Your task to perform on an android device: turn smart compose on in the gmail app Image 0: 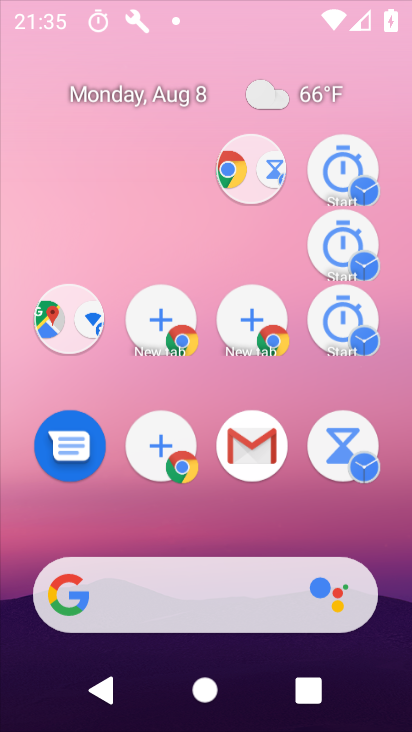
Step 0: drag from (260, 662) to (219, 305)
Your task to perform on an android device: turn smart compose on in the gmail app Image 1: 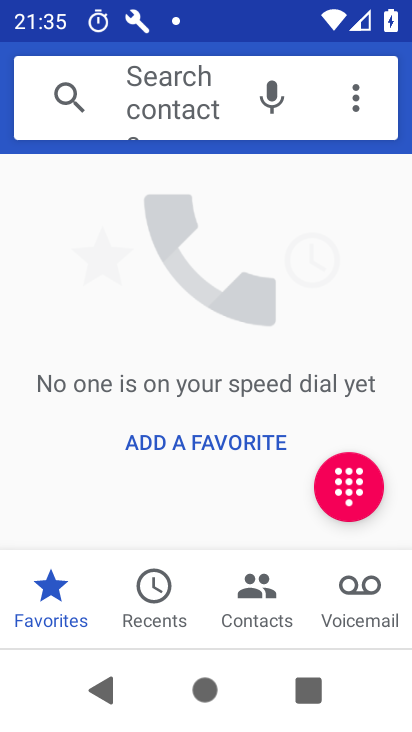
Step 1: drag from (218, 682) to (217, 434)
Your task to perform on an android device: turn smart compose on in the gmail app Image 2: 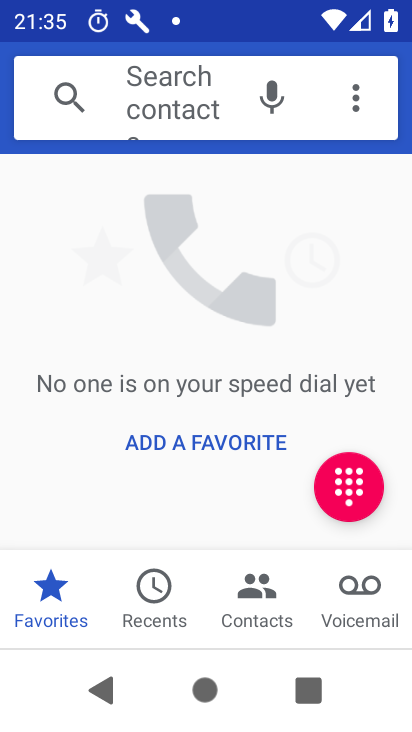
Step 2: press back button
Your task to perform on an android device: turn smart compose on in the gmail app Image 3: 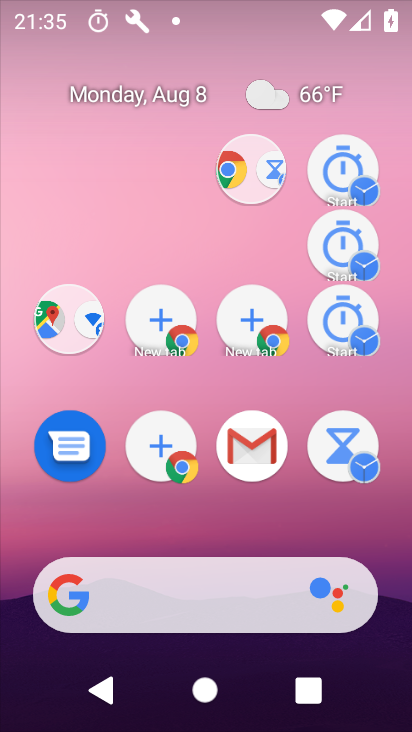
Step 3: drag from (276, 616) to (233, 229)
Your task to perform on an android device: turn smart compose on in the gmail app Image 4: 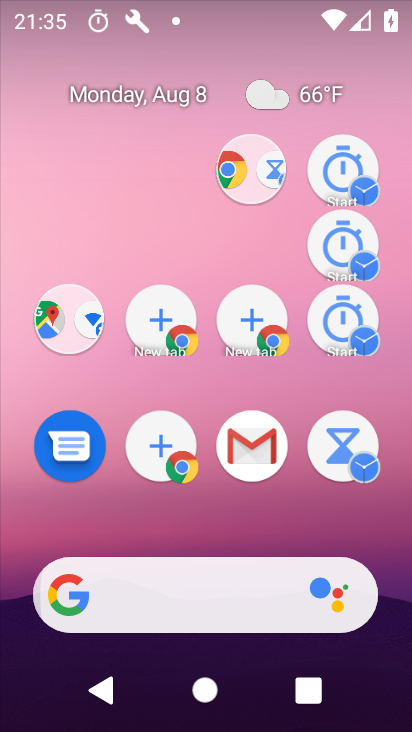
Step 4: drag from (222, 628) to (229, 336)
Your task to perform on an android device: turn smart compose on in the gmail app Image 5: 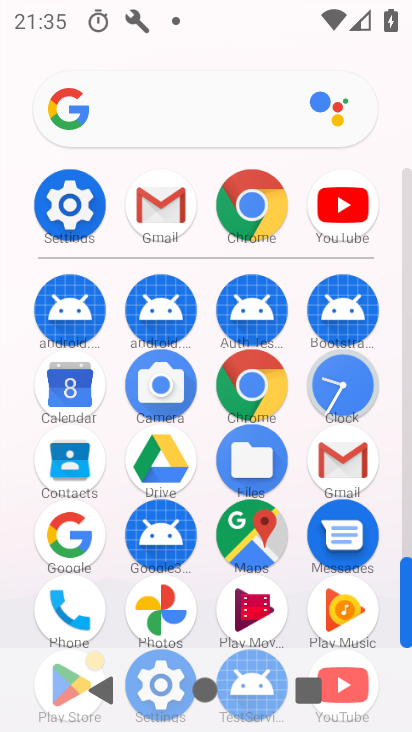
Step 5: click (345, 454)
Your task to perform on an android device: turn smart compose on in the gmail app Image 6: 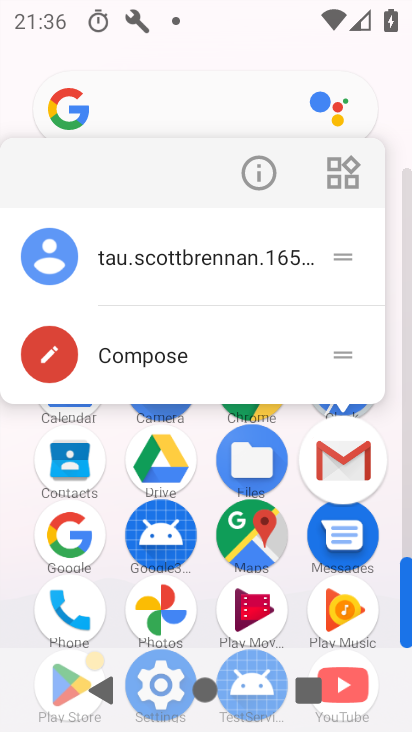
Step 6: click (346, 454)
Your task to perform on an android device: turn smart compose on in the gmail app Image 7: 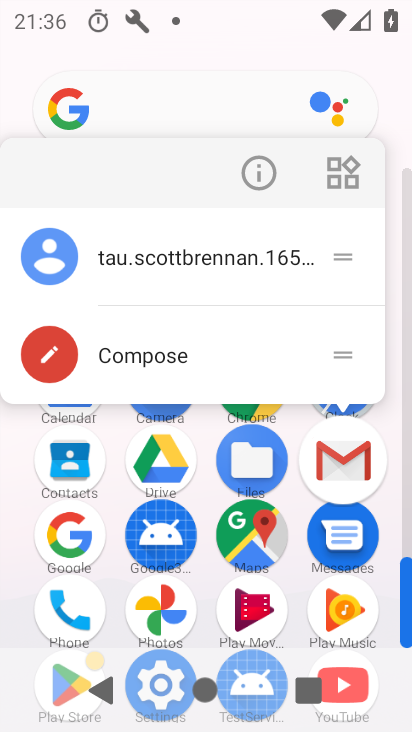
Step 7: click (347, 455)
Your task to perform on an android device: turn smart compose on in the gmail app Image 8: 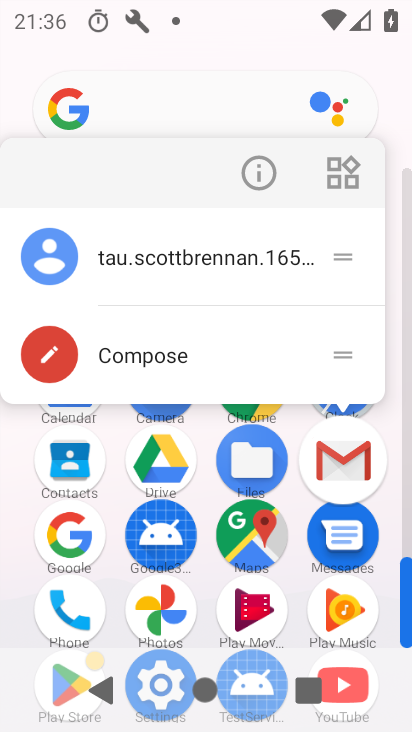
Step 8: click (352, 460)
Your task to perform on an android device: turn smart compose on in the gmail app Image 9: 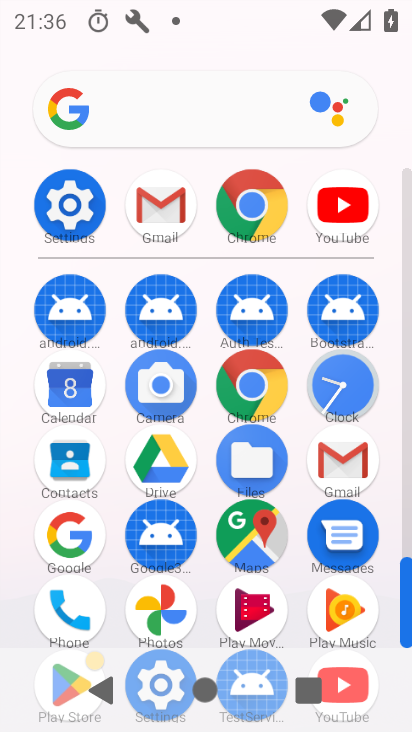
Step 9: click (353, 457)
Your task to perform on an android device: turn smart compose on in the gmail app Image 10: 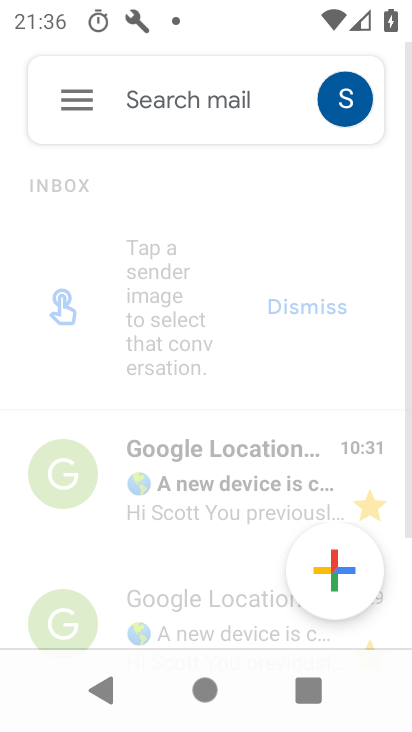
Step 10: click (353, 457)
Your task to perform on an android device: turn smart compose on in the gmail app Image 11: 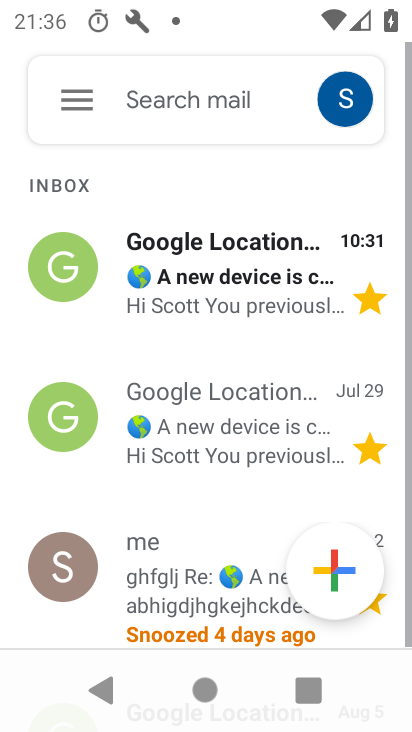
Step 11: click (72, 106)
Your task to perform on an android device: turn smart compose on in the gmail app Image 12: 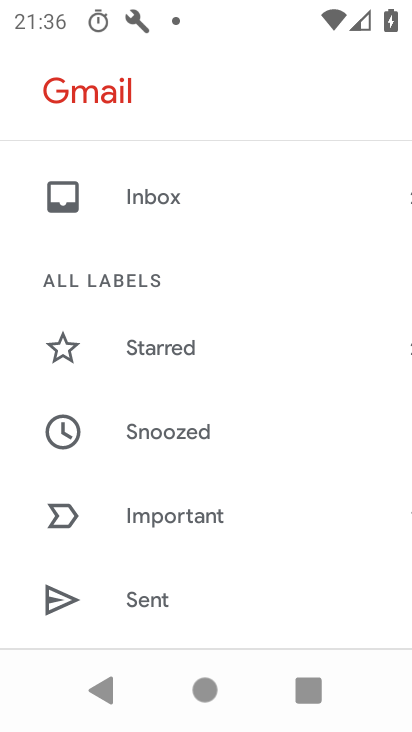
Step 12: drag from (188, 551) to (195, 183)
Your task to perform on an android device: turn smart compose on in the gmail app Image 13: 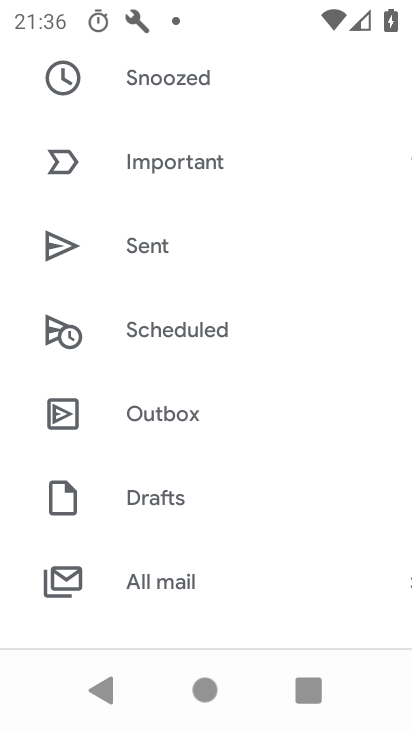
Step 13: drag from (226, 536) to (226, 163)
Your task to perform on an android device: turn smart compose on in the gmail app Image 14: 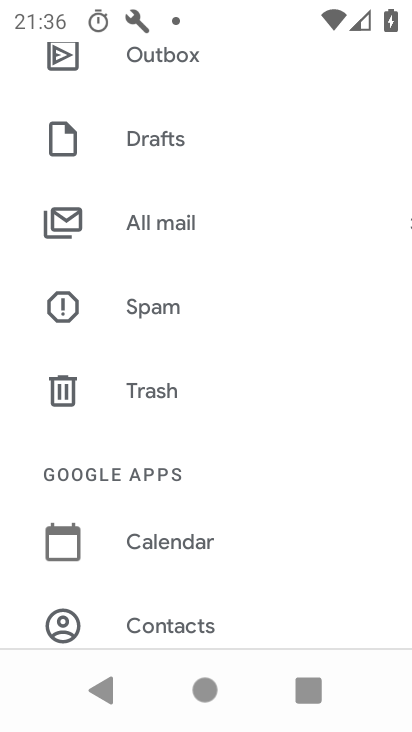
Step 14: click (202, 203)
Your task to perform on an android device: turn smart compose on in the gmail app Image 15: 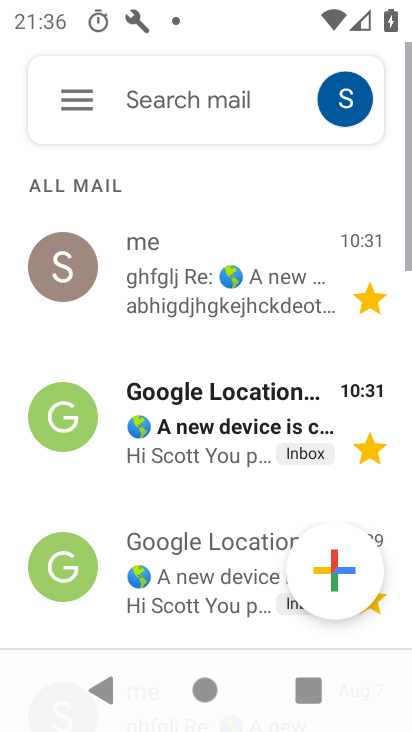
Step 15: click (81, 104)
Your task to perform on an android device: turn smart compose on in the gmail app Image 16: 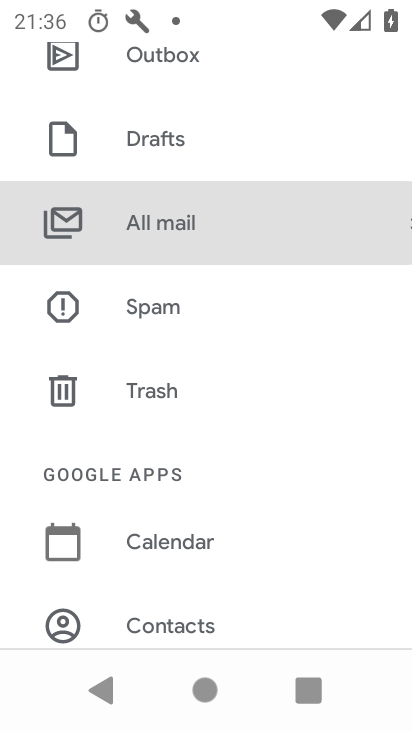
Step 16: drag from (176, 533) to (164, 193)
Your task to perform on an android device: turn smart compose on in the gmail app Image 17: 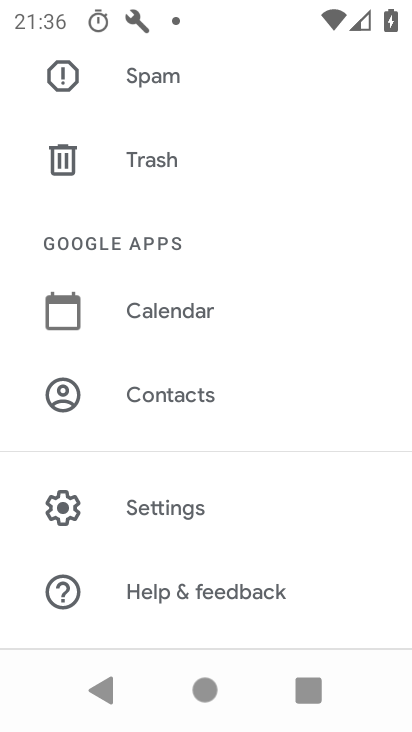
Step 17: drag from (224, 507) to (243, 275)
Your task to perform on an android device: turn smart compose on in the gmail app Image 18: 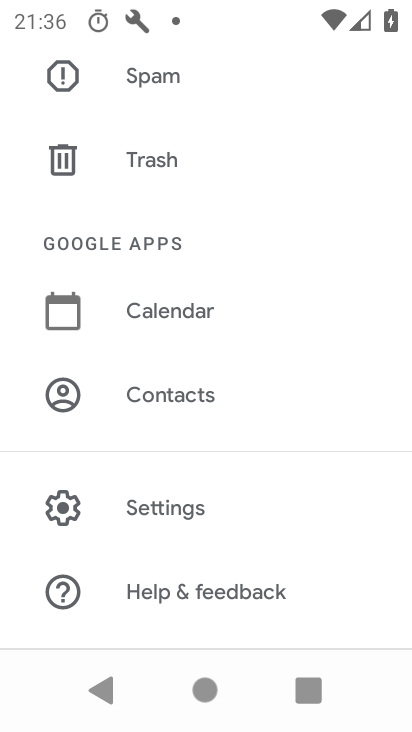
Step 18: click (166, 521)
Your task to perform on an android device: turn smart compose on in the gmail app Image 19: 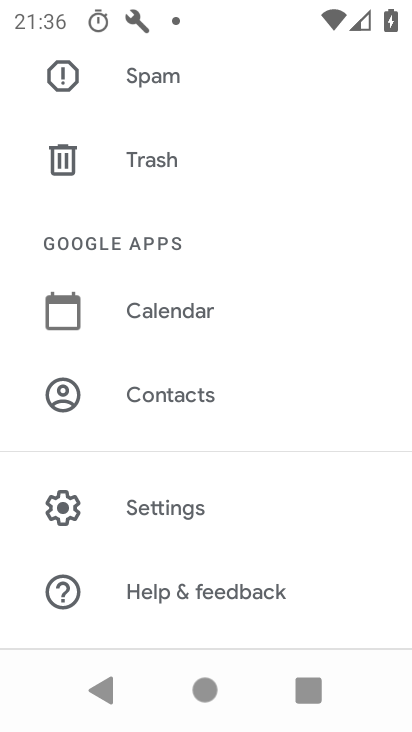
Step 19: click (150, 504)
Your task to perform on an android device: turn smart compose on in the gmail app Image 20: 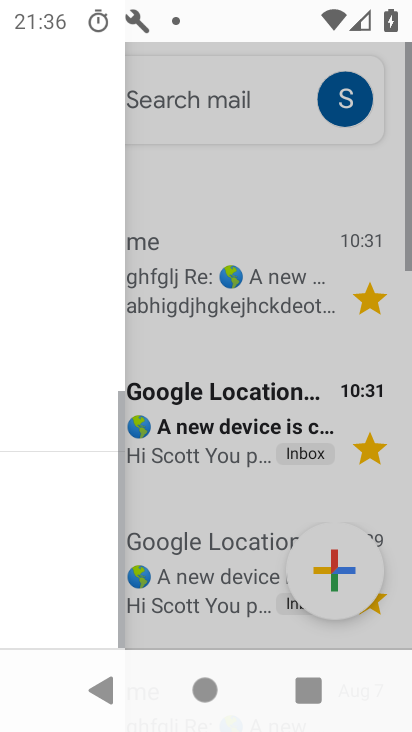
Step 20: click (150, 504)
Your task to perform on an android device: turn smart compose on in the gmail app Image 21: 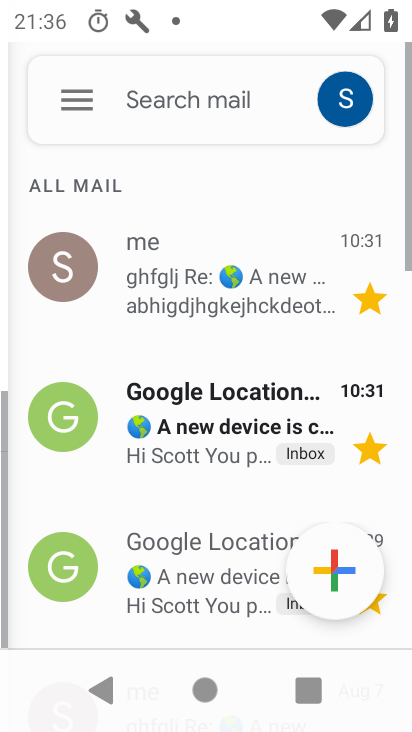
Step 21: click (150, 504)
Your task to perform on an android device: turn smart compose on in the gmail app Image 22: 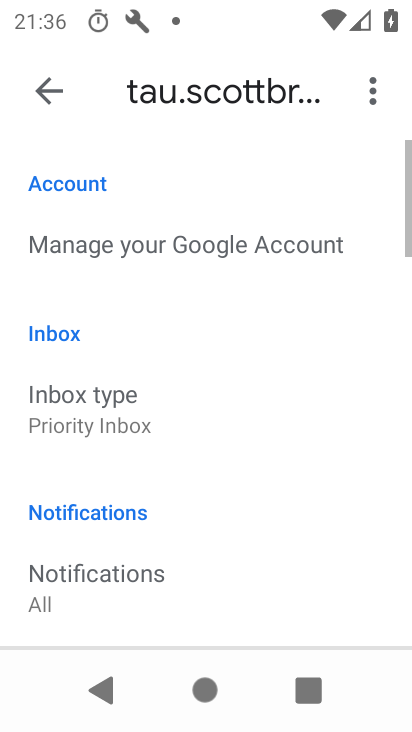
Step 22: task complete